Your task to perform on an android device: turn off notifications in google photos Image 0: 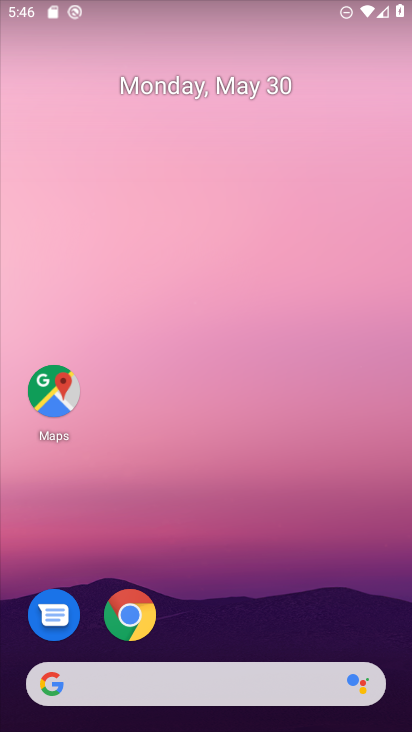
Step 0: drag from (226, 622) to (260, 79)
Your task to perform on an android device: turn off notifications in google photos Image 1: 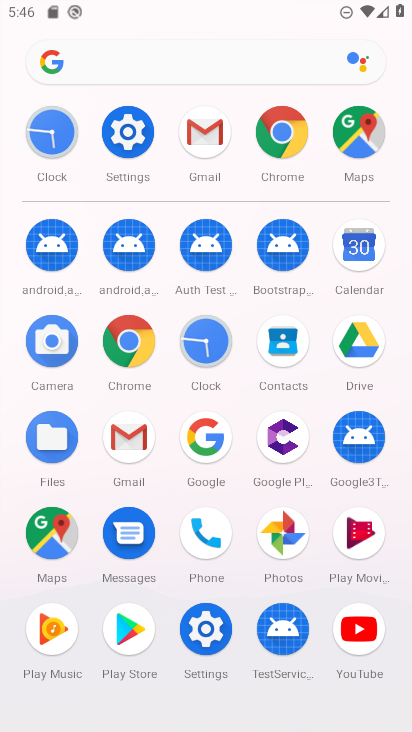
Step 1: click (275, 544)
Your task to perform on an android device: turn off notifications in google photos Image 2: 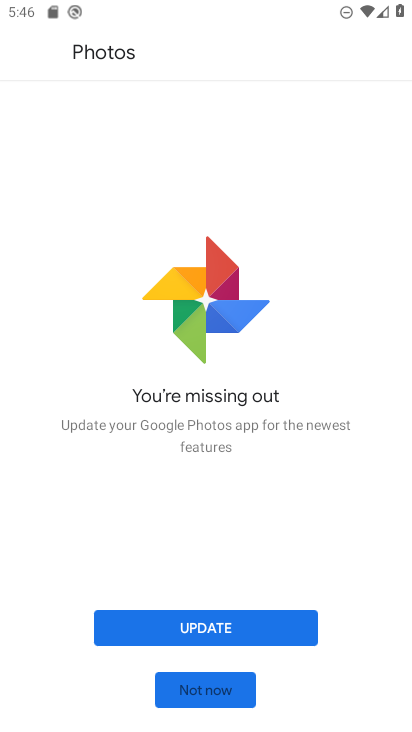
Step 2: click (194, 688)
Your task to perform on an android device: turn off notifications in google photos Image 3: 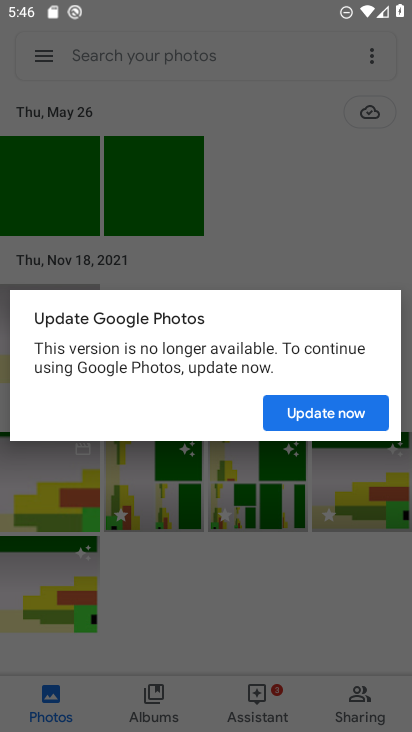
Step 3: click (340, 420)
Your task to perform on an android device: turn off notifications in google photos Image 4: 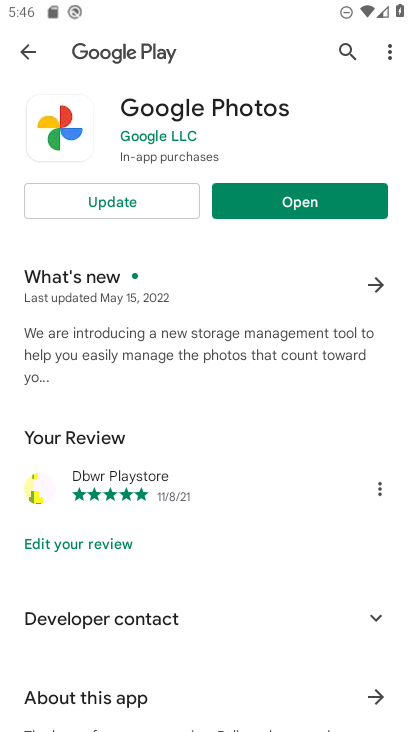
Step 4: click (296, 211)
Your task to perform on an android device: turn off notifications in google photos Image 5: 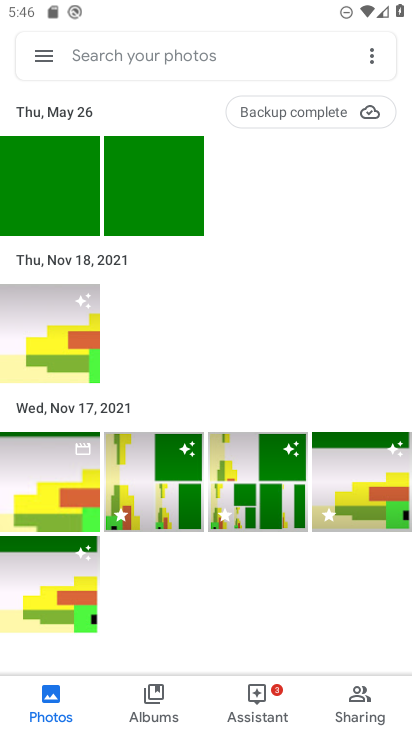
Step 5: click (43, 56)
Your task to perform on an android device: turn off notifications in google photos Image 6: 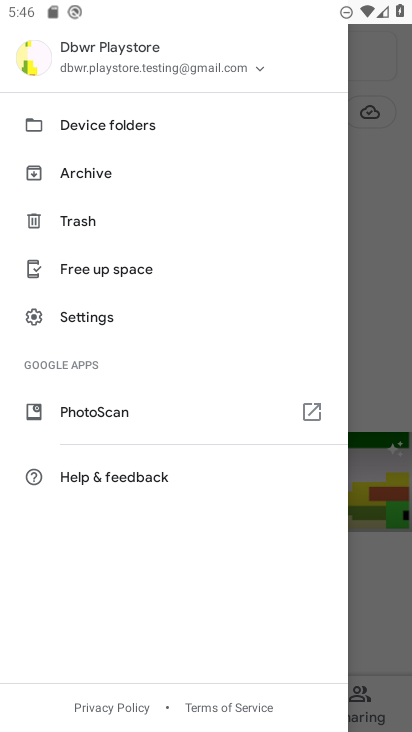
Step 6: click (110, 304)
Your task to perform on an android device: turn off notifications in google photos Image 7: 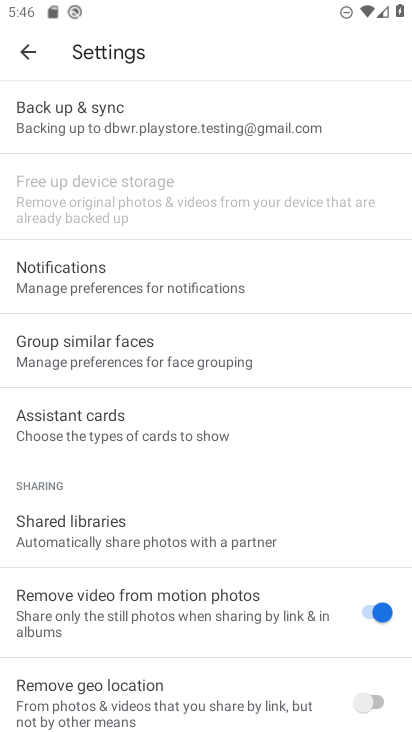
Step 7: click (110, 304)
Your task to perform on an android device: turn off notifications in google photos Image 8: 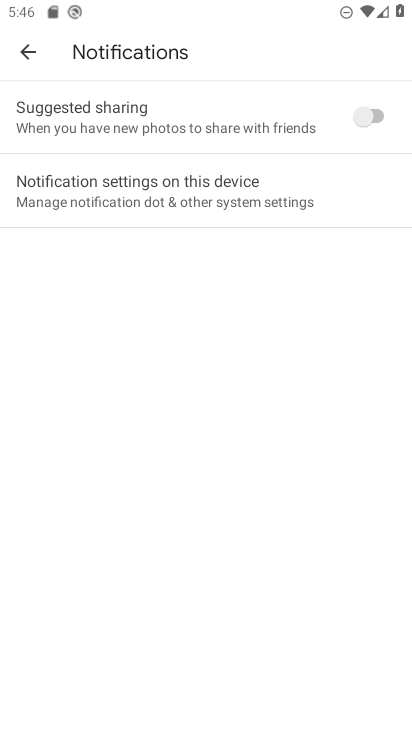
Step 8: click (243, 179)
Your task to perform on an android device: turn off notifications in google photos Image 9: 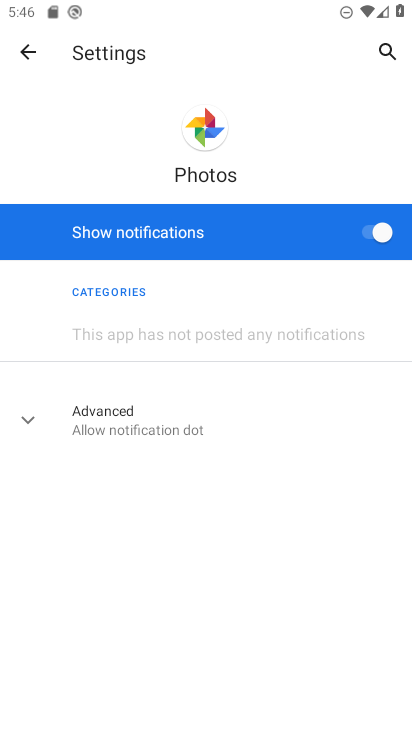
Step 9: click (366, 234)
Your task to perform on an android device: turn off notifications in google photos Image 10: 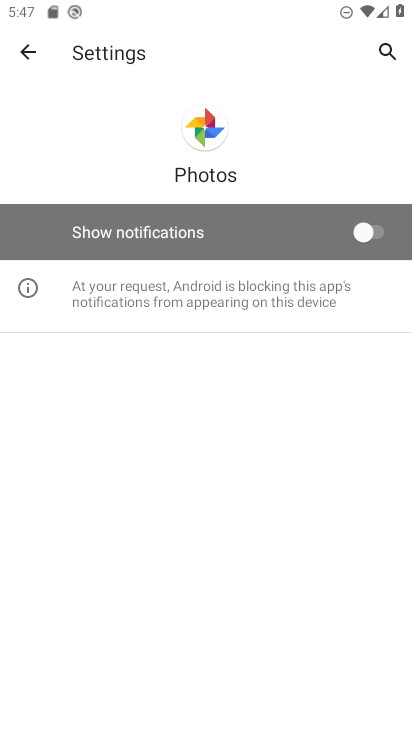
Step 10: task complete